Your task to perform on an android device: change notifications settings Image 0: 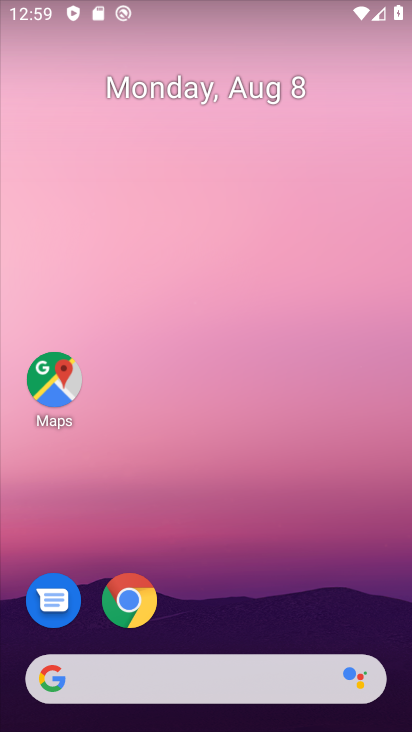
Step 0: drag from (245, 562) to (181, 32)
Your task to perform on an android device: change notifications settings Image 1: 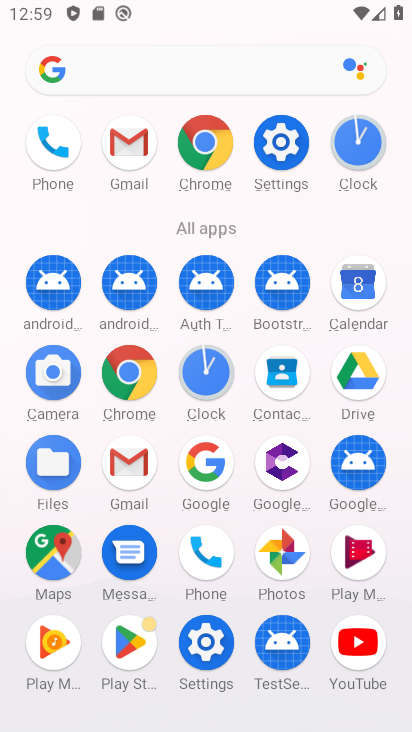
Step 1: click (201, 650)
Your task to perform on an android device: change notifications settings Image 2: 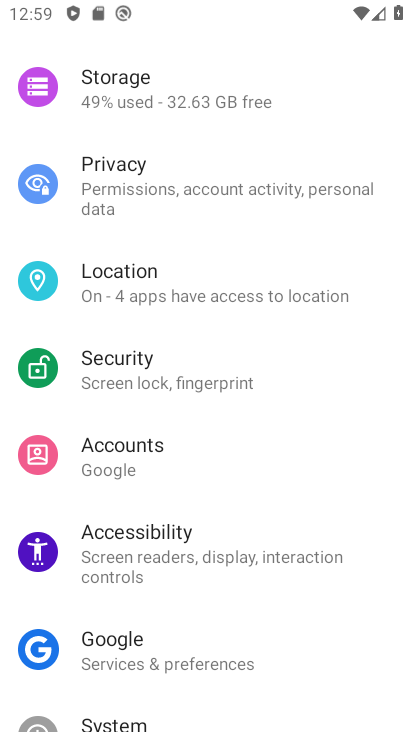
Step 2: drag from (219, 629) to (223, 242)
Your task to perform on an android device: change notifications settings Image 3: 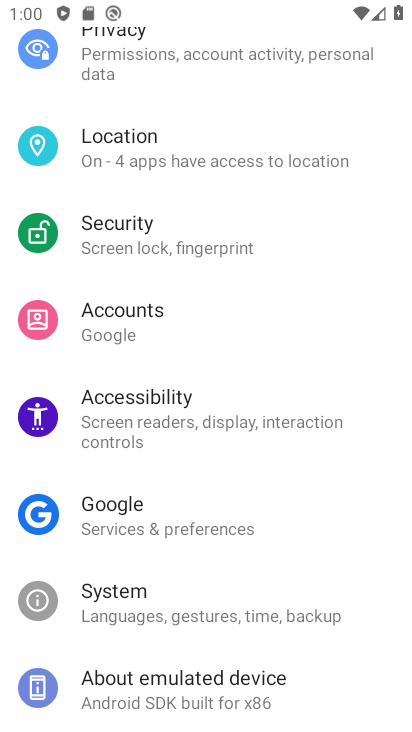
Step 3: drag from (226, 264) to (232, 688)
Your task to perform on an android device: change notifications settings Image 4: 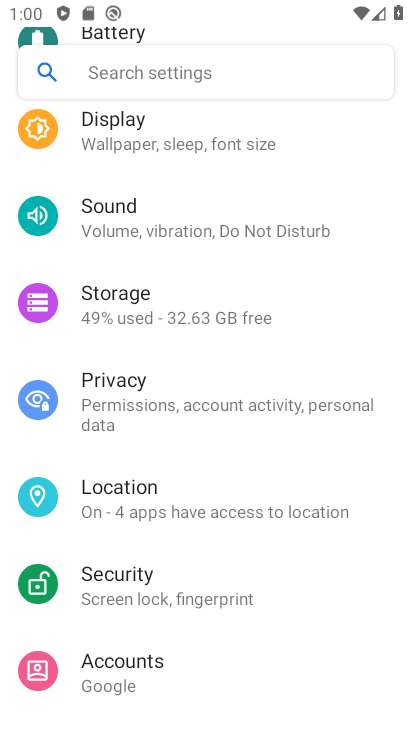
Step 4: drag from (147, 154) to (159, 659)
Your task to perform on an android device: change notifications settings Image 5: 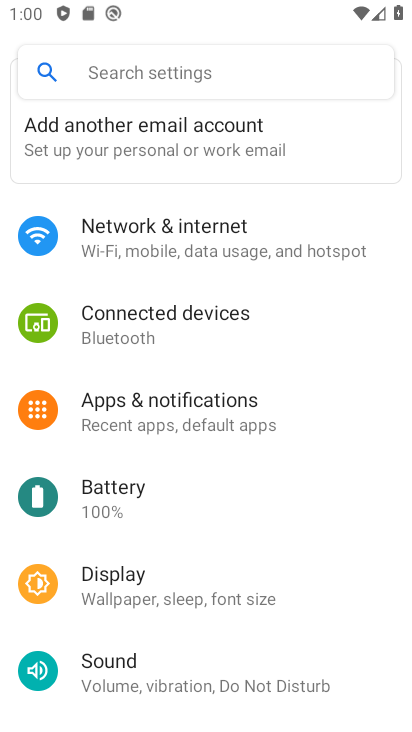
Step 5: click (202, 416)
Your task to perform on an android device: change notifications settings Image 6: 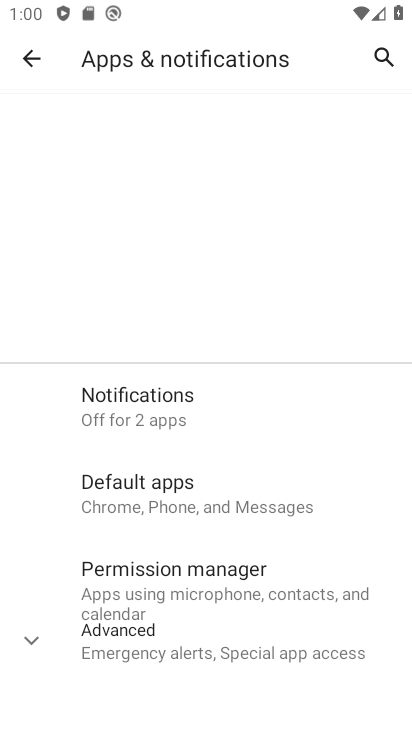
Step 6: click (202, 416)
Your task to perform on an android device: change notifications settings Image 7: 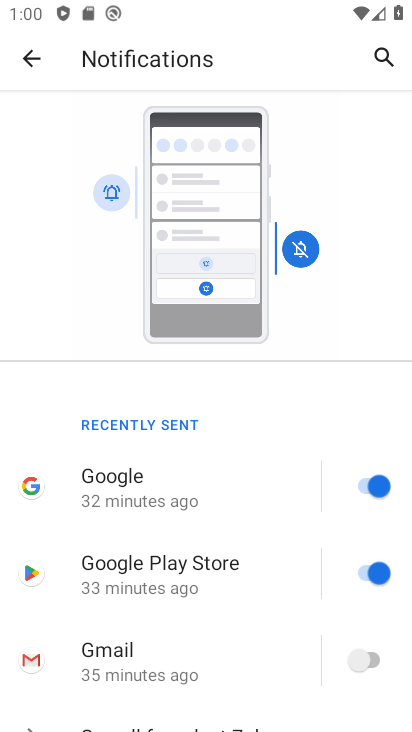
Step 7: task complete